Your task to perform on an android device: clear all cookies in the chrome app Image 0: 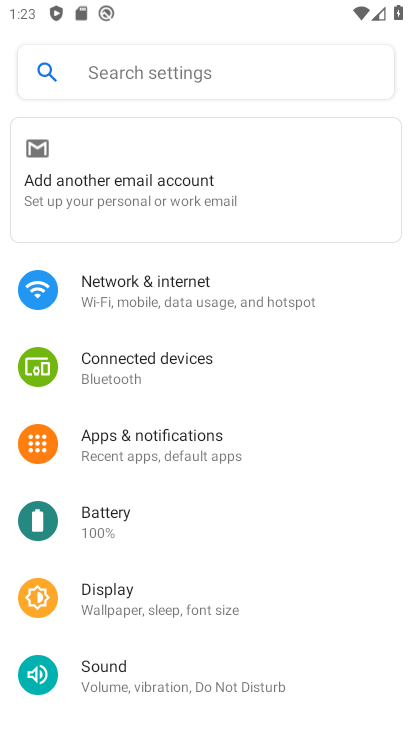
Step 0: press home button
Your task to perform on an android device: clear all cookies in the chrome app Image 1: 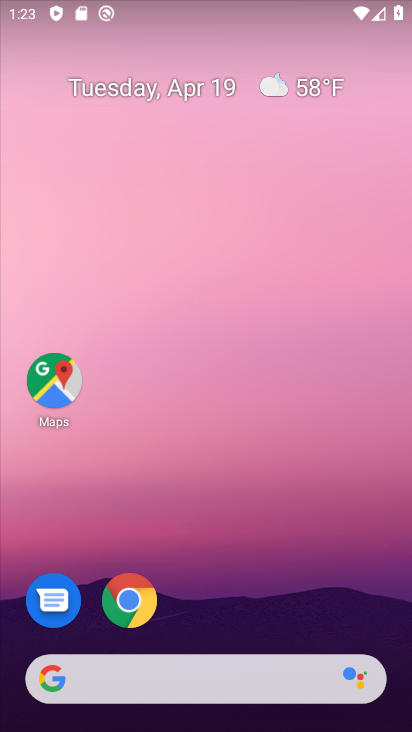
Step 1: click (129, 612)
Your task to perform on an android device: clear all cookies in the chrome app Image 2: 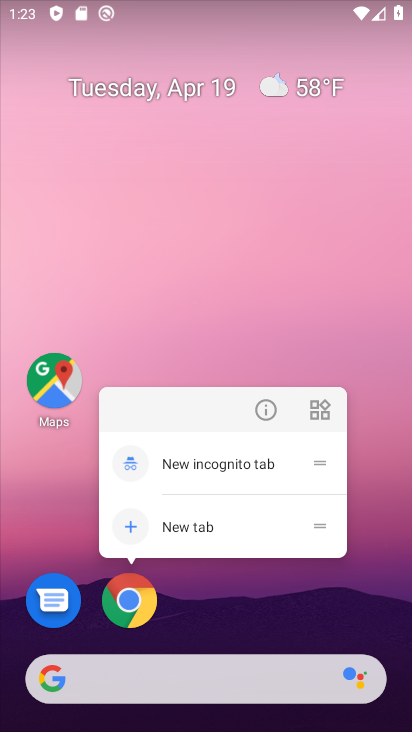
Step 2: click (144, 628)
Your task to perform on an android device: clear all cookies in the chrome app Image 3: 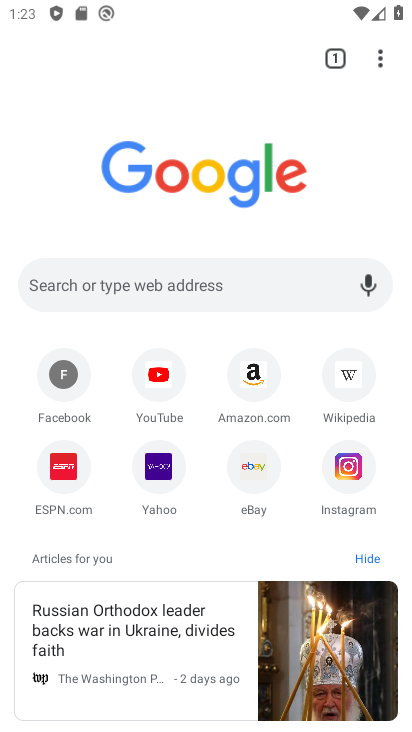
Step 3: click (374, 94)
Your task to perform on an android device: clear all cookies in the chrome app Image 4: 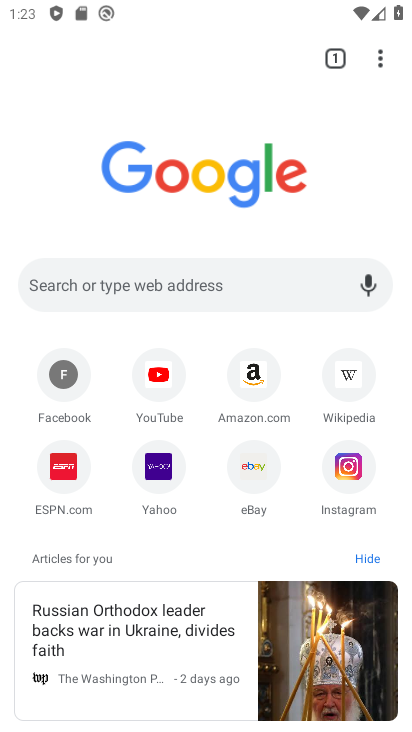
Step 4: click (378, 66)
Your task to perform on an android device: clear all cookies in the chrome app Image 5: 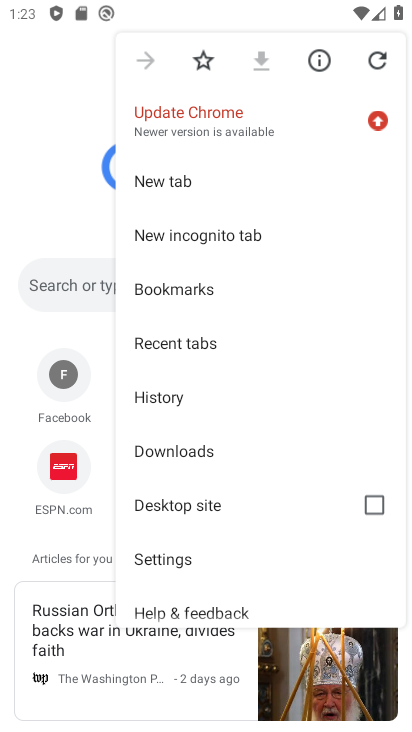
Step 5: click (180, 398)
Your task to perform on an android device: clear all cookies in the chrome app Image 6: 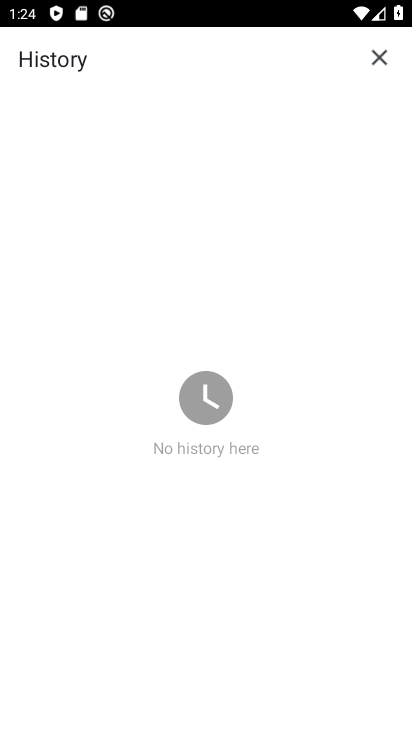
Step 6: task complete